Your task to perform on an android device: turn on the 12-hour format for clock Image 0: 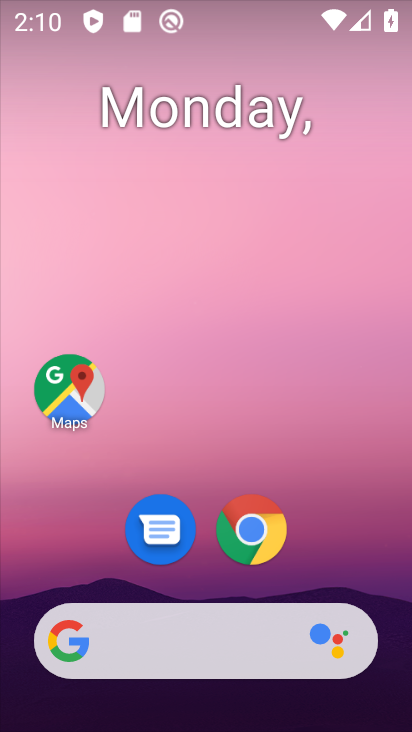
Step 0: drag from (71, 618) to (206, 57)
Your task to perform on an android device: turn on the 12-hour format for clock Image 1: 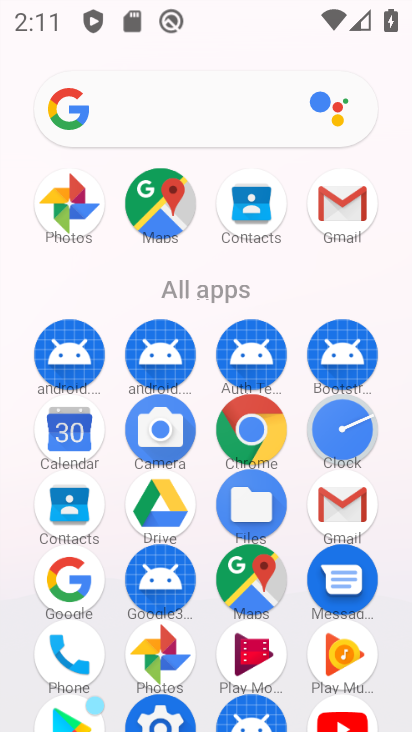
Step 1: click (359, 457)
Your task to perform on an android device: turn on the 12-hour format for clock Image 2: 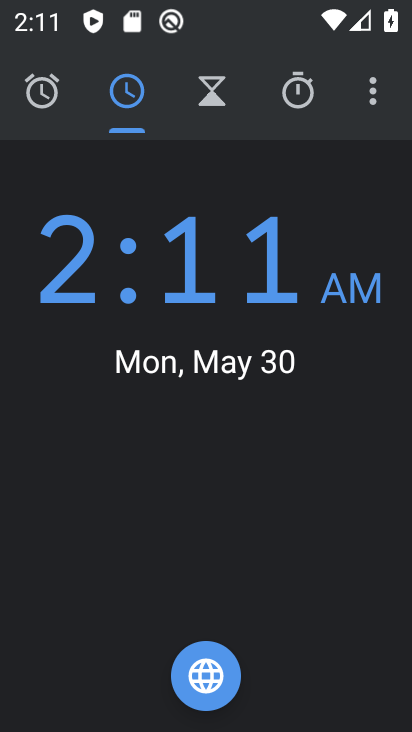
Step 2: click (373, 99)
Your task to perform on an android device: turn on the 12-hour format for clock Image 3: 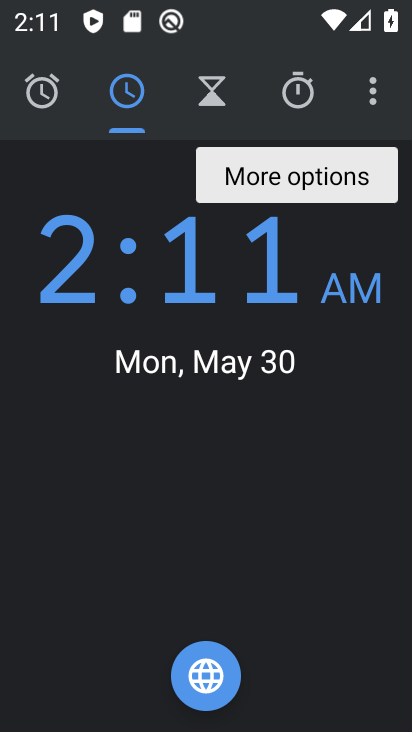
Step 3: click (371, 99)
Your task to perform on an android device: turn on the 12-hour format for clock Image 4: 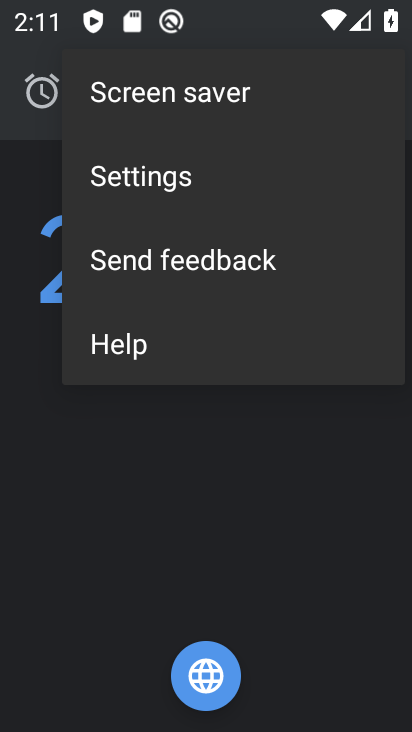
Step 4: click (317, 173)
Your task to perform on an android device: turn on the 12-hour format for clock Image 5: 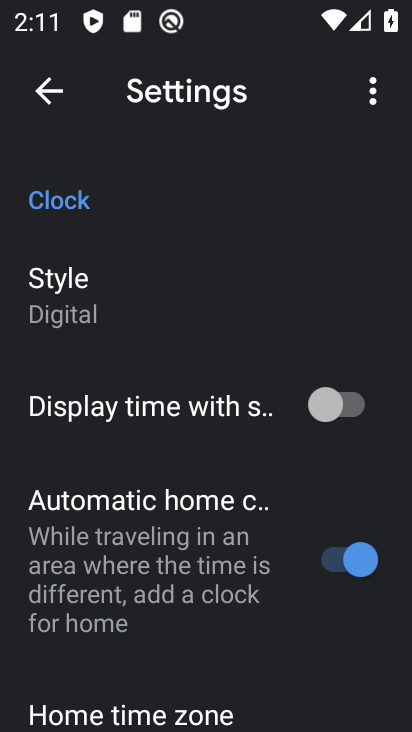
Step 5: drag from (163, 531) to (255, 192)
Your task to perform on an android device: turn on the 12-hour format for clock Image 6: 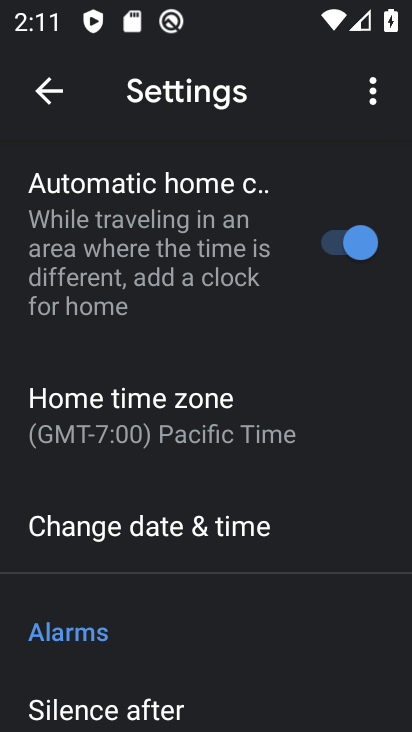
Step 6: click (268, 530)
Your task to perform on an android device: turn on the 12-hour format for clock Image 7: 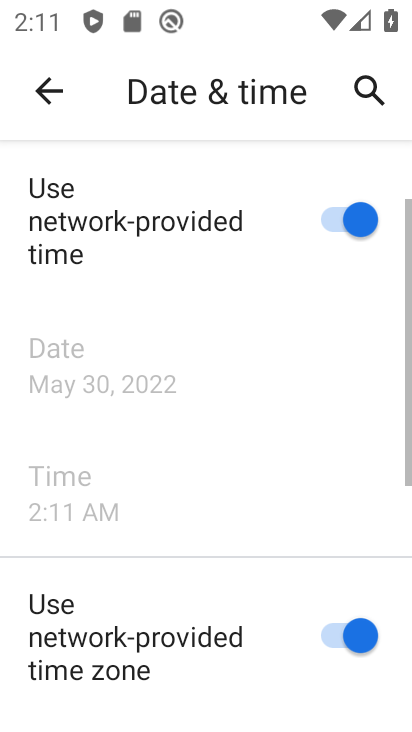
Step 7: task complete